Your task to perform on an android device: uninstall "Yahoo Mail" Image 0: 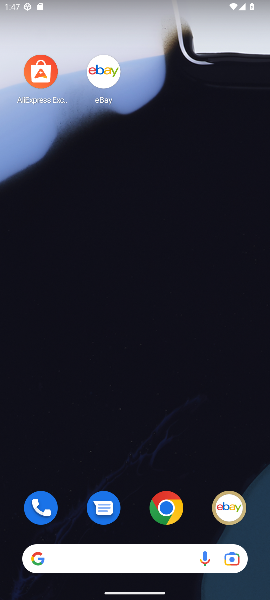
Step 0: drag from (150, 441) to (136, 91)
Your task to perform on an android device: uninstall "Yahoo Mail" Image 1: 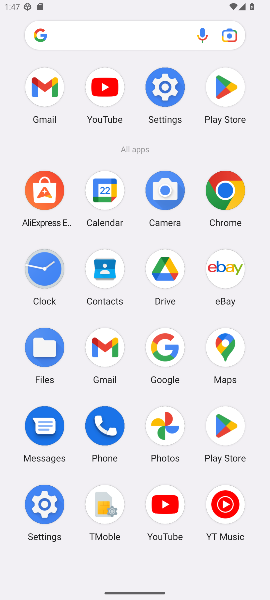
Step 1: click (228, 83)
Your task to perform on an android device: uninstall "Yahoo Mail" Image 2: 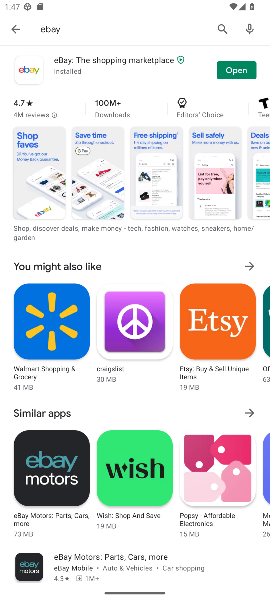
Step 2: click (224, 23)
Your task to perform on an android device: uninstall "Yahoo Mail" Image 3: 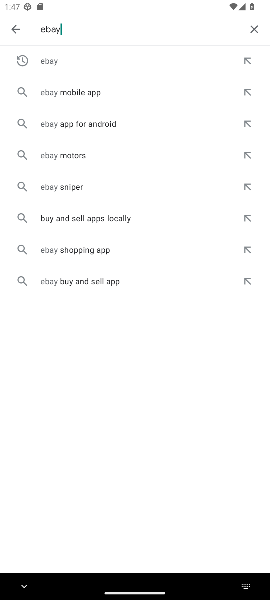
Step 3: click (260, 29)
Your task to perform on an android device: uninstall "Yahoo Mail" Image 4: 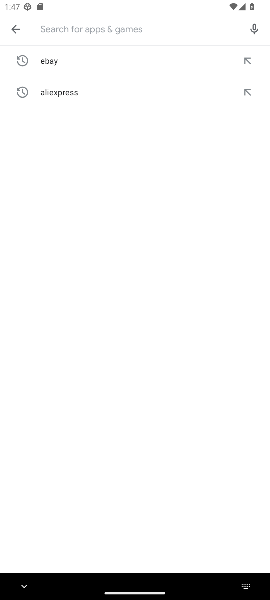
Step 4: press back button
Your task to perform on an android device: uninstall "Yahoo Mail" Image 5: 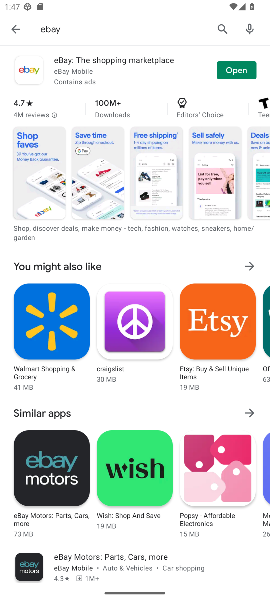
Step 5: click (222, 24)
Your task to perform on an android device: uninstall "Yahoo Mail" Image 6: 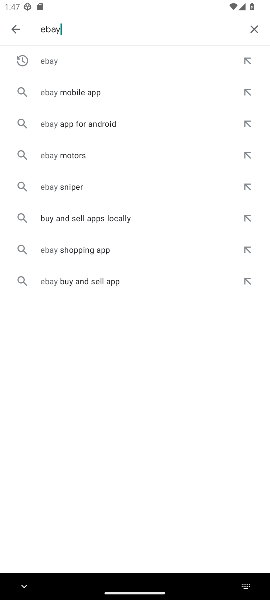
Step 6: click (252, 29)
Your task to perform on an android device: uninstall "Yahoo Mail" Image 7: 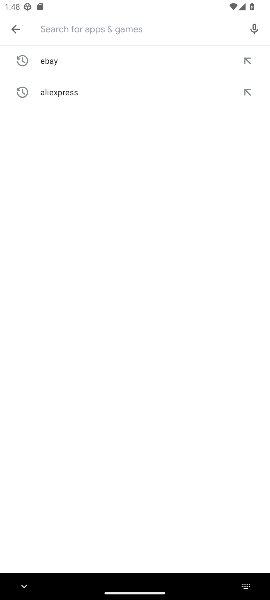
Step 7: type "yahoo mail"
Your task to perform on an android device: uninstall "Yahoo Mail" Image 8: 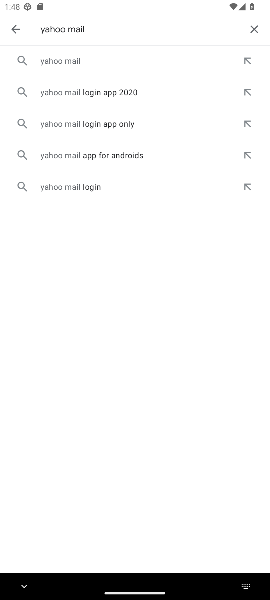
Step 8: click (54, 57)
Your task to perform on an android device: uninstall "Yahoo Mail" Image 9: 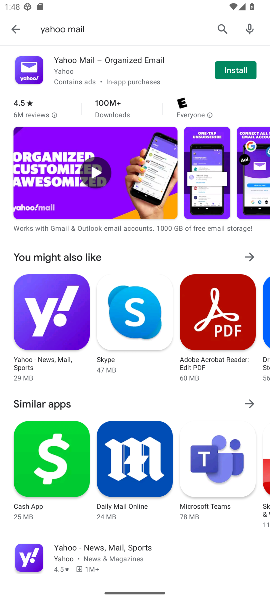
Step 9: task complete